Your task to perform on an android device: turn on translation in the chrome app Image 0: 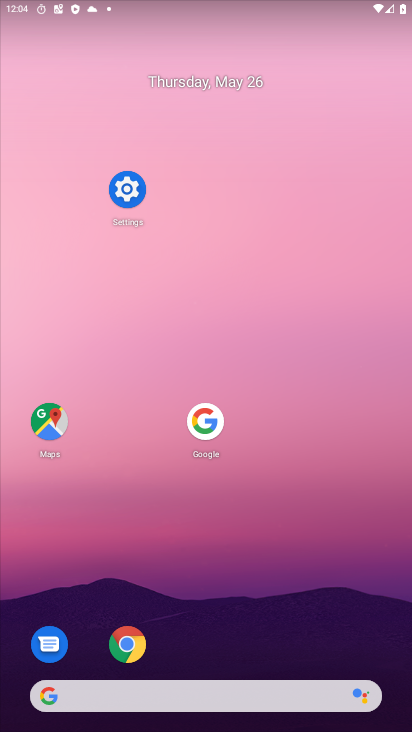
Step 0: click (131, 641)
Your task to perform on an android device: turn on translation in the chrome app Image 1: 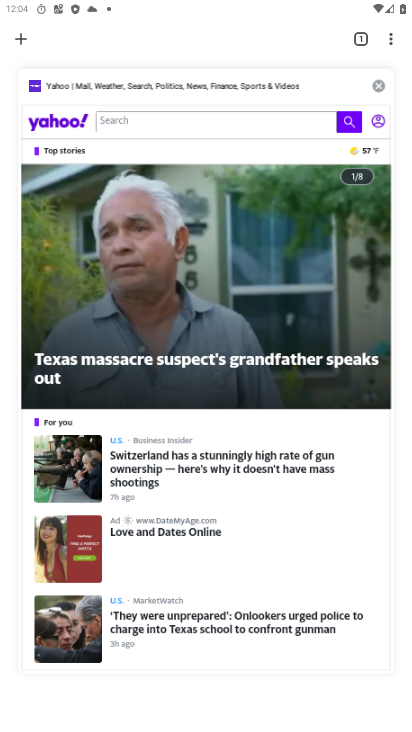
Step 1: click (387, 42)
Your task to perform on an android device: turn on translation in the chrome app Image 2: 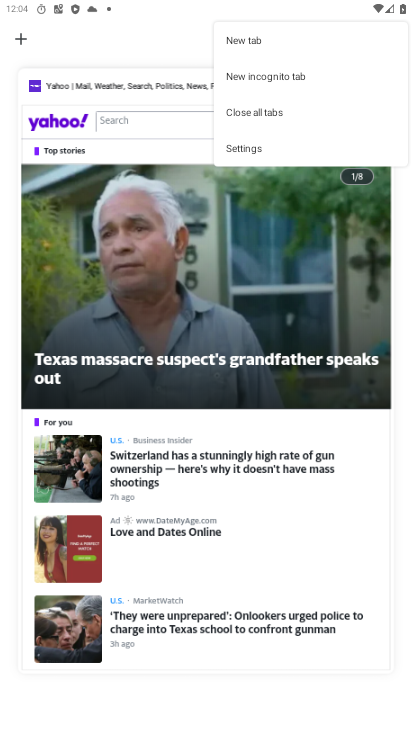
Step 2: click (251, 157)
Your task to perform on an android device: turn on translation in the chrome app Image 3: 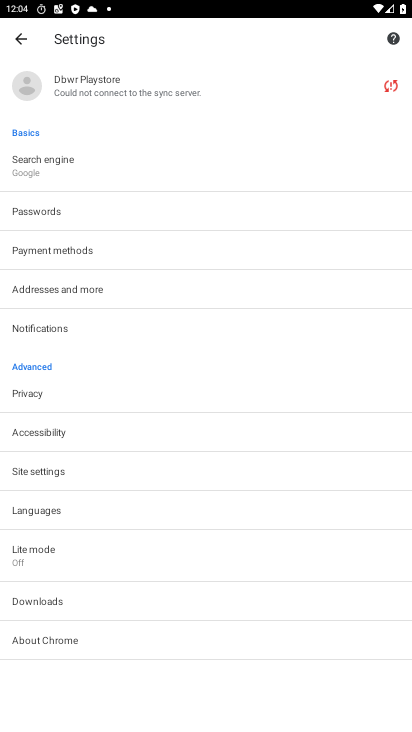
Step 3: click (70, 509)
Your task to perform on an android device: turn on translation in the chrome app Image 4: 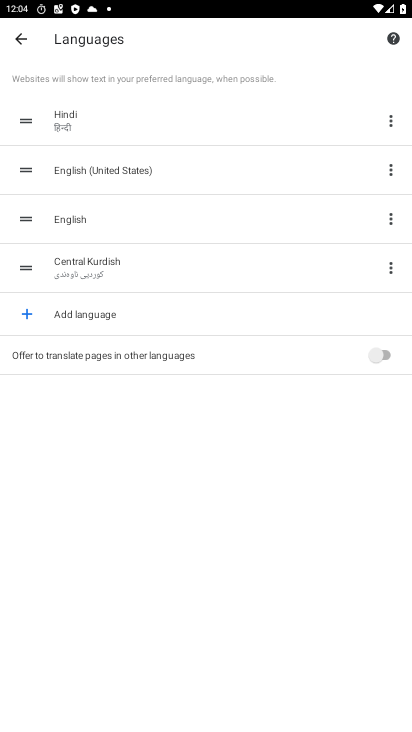
Step 4: click (375, 352)
Your task to perform on an android device: turn on translation in the chrome app Image 5: 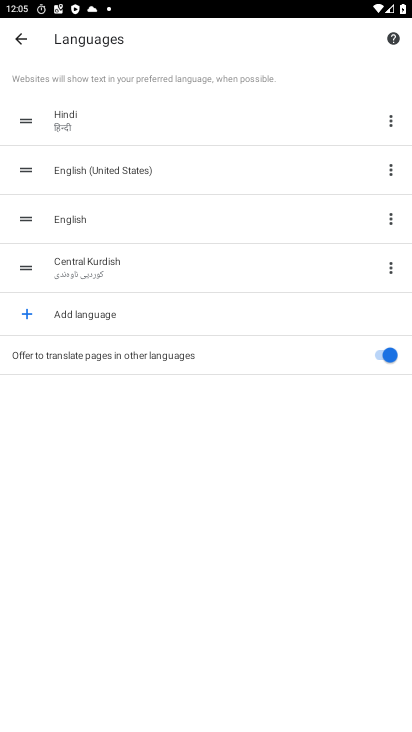
Step 5: task complete